Your task to perform on an android device: find snoozed emails in the gmail app Image 0: 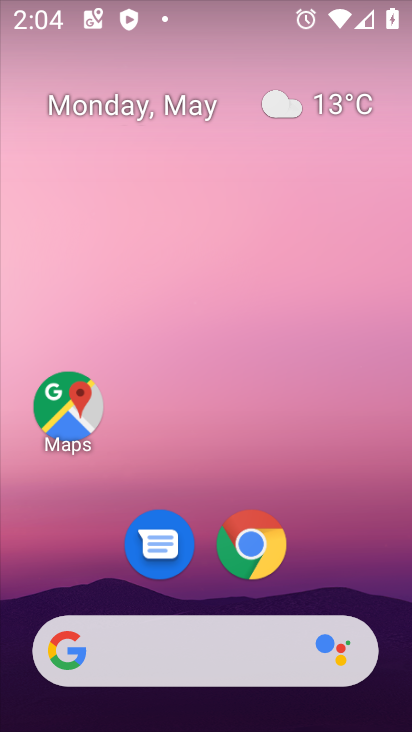
Step 0: drag from (392, 611) to (338, 92)
Your task to perform on an android device: find snoozed emails in the gmail app Image 1: 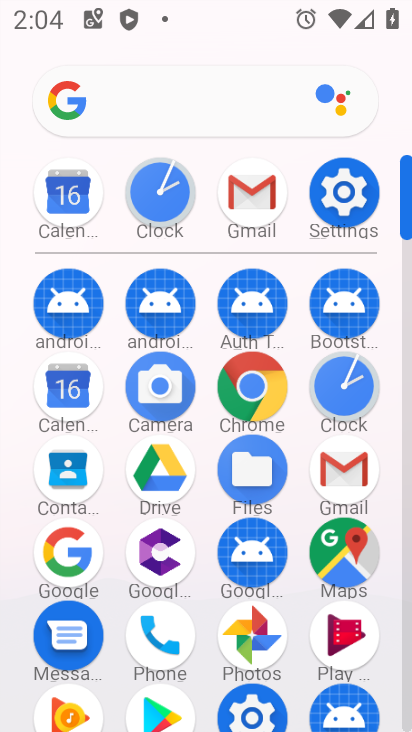
Step 1: click (411, 703)
Your task to perform on an android device: find snoozed emails in the gmail app Image 2: 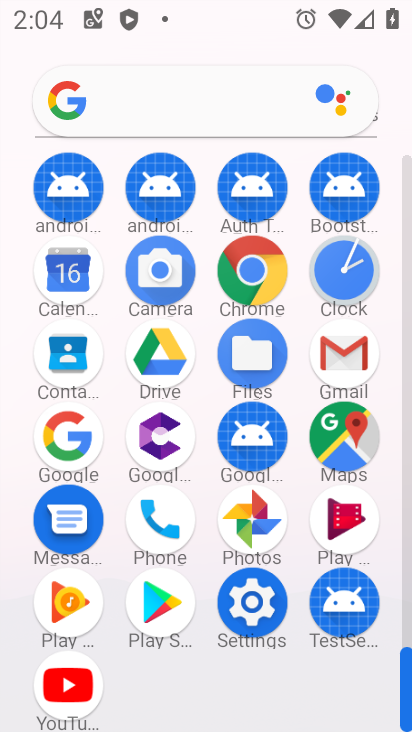
Step 2: click (345, 352)
Your task to perform on an android device: find snoozed emails in the gmail app Image 3: 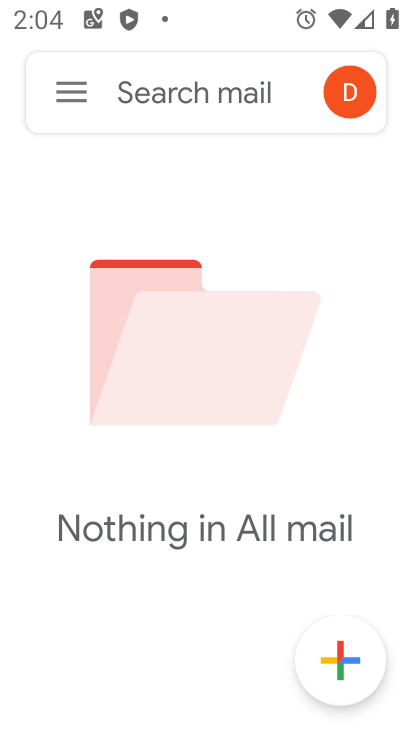
Step 3: click (68, 96)
Your task to perform on an android device: find snoozed emails in the gmail app Image 4: 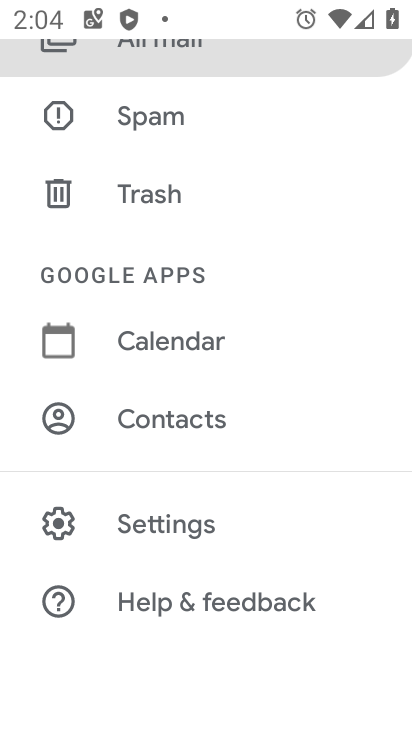
Step 4: drag from (254, 167) to (220, 472)
Your task to perform on an android device: find snoozed emails in the gmail app Image 5: 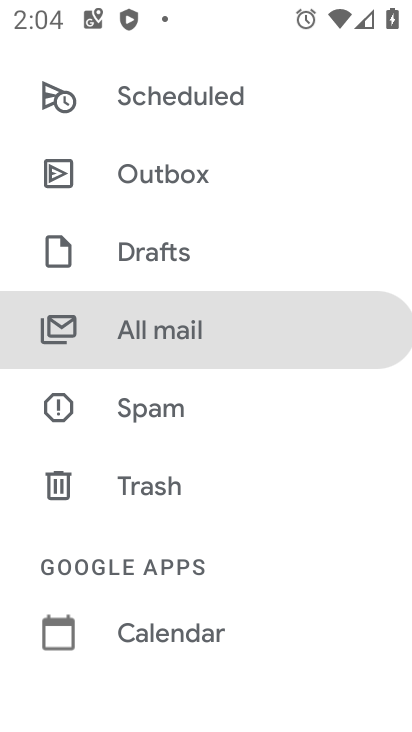
Step 5: drag from (302, 193) to (299, 518)
Your task to perform on an android device: find snoozed emails in the gmail app Image 6: 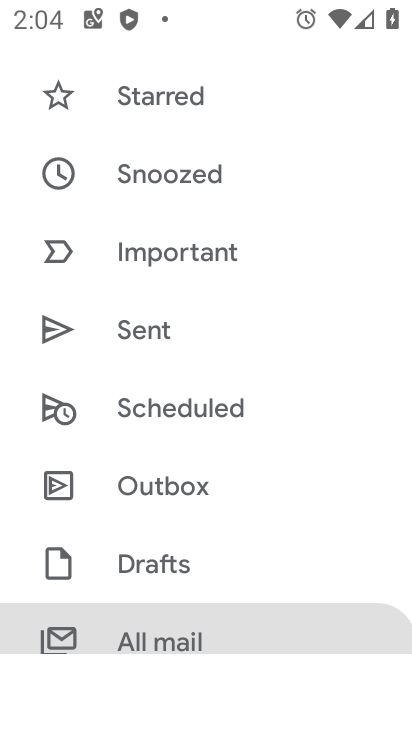
Step 6: click (155, 183)
Your task to perform on an android device: find snoozed emails in the gmail app Image 7: 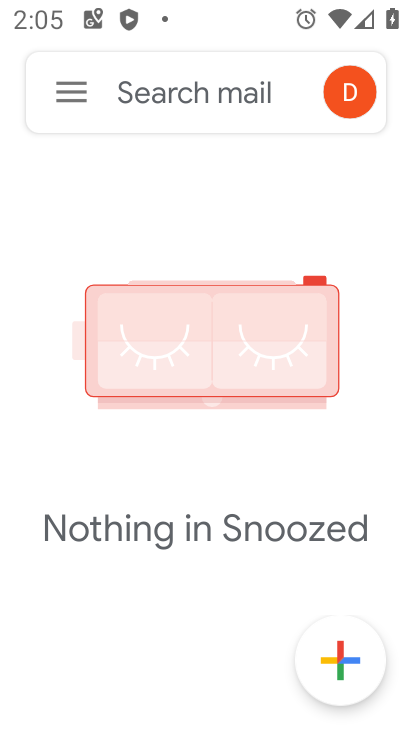
Step 7: task complete